Your task to perform on an android device: Search for Mexican restaurants on Maps Image 0: 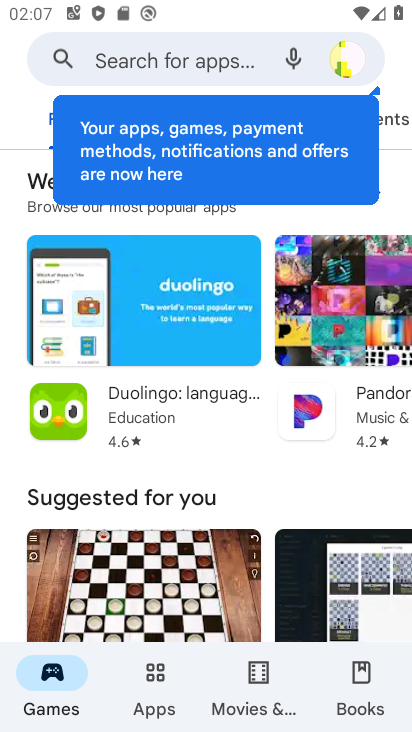
Step 0: press home button
Your task to perform on an android device: Search for Mexican restaurants on Maps Image 1: 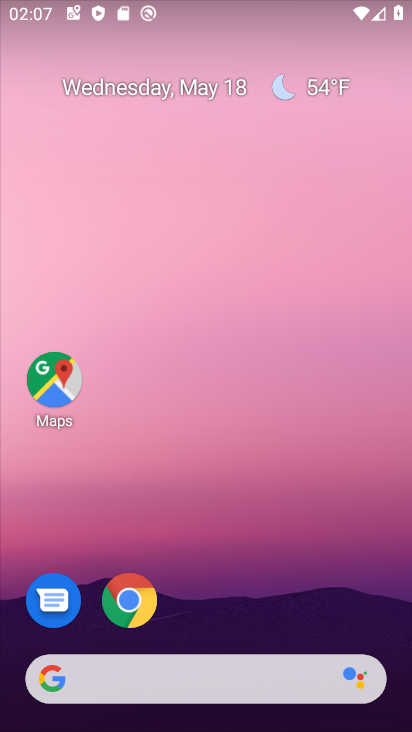
Step 1: drag from (199, 657) to (182, 268)
Your task to perform on an android device: Search for Mexican restaurants on Maps Image 2: 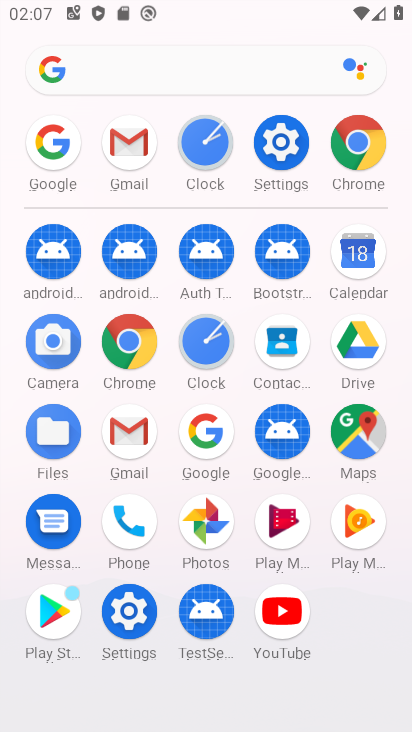
Step 2: click (48, 612)
Your task to perform on an android device: Search for Mexican restaurants on Maps Image 3: 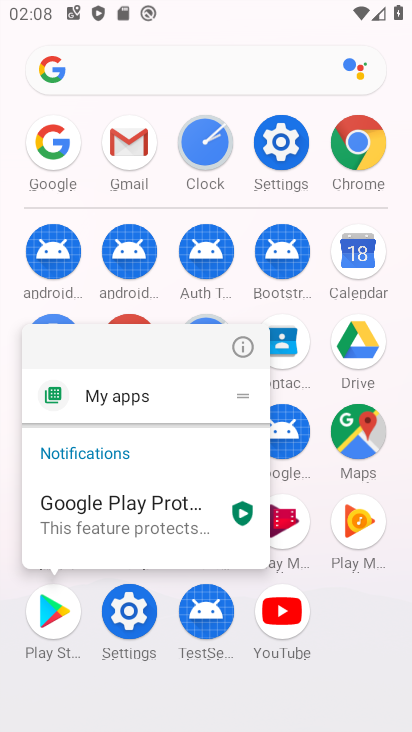
Step 3: click (325, 448)
Your task to perform on an android device: Search for Mexican restaurants on Maps Image 4: 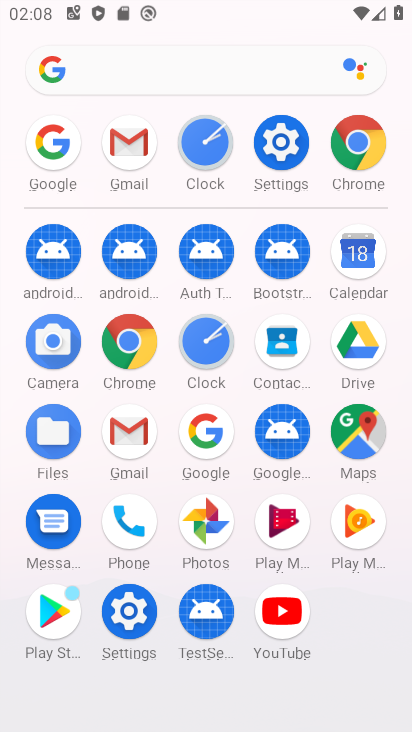
Step 4: click (349, 700)
Your task to perform on an android device: Search for Mexican restaurants on Maps Image 5: 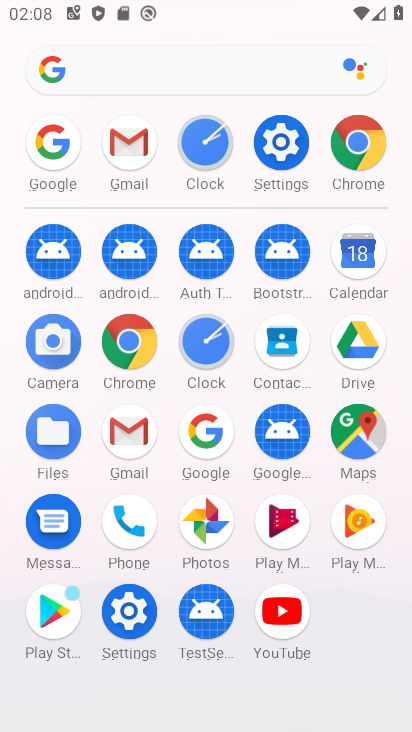
Step 5: click (345, 439)
Your task to perform on an android device: Search for Mexican restaurants on Maps Image 6: 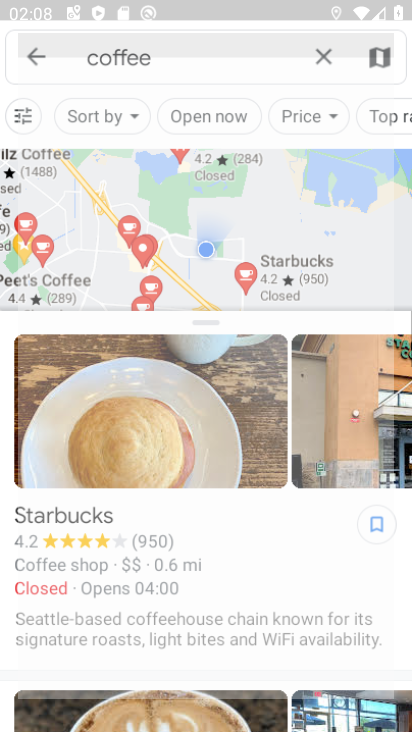
Step 6: click (327, 58)
Your task to perform on an android device: Search for Mexican restaurants on Maps Image 7: 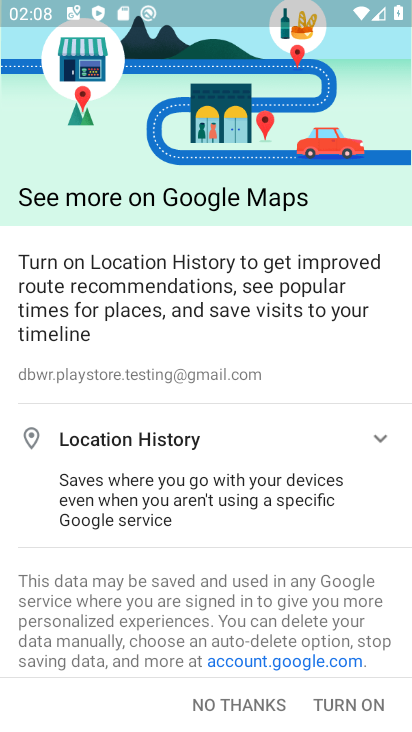
Step 7: click (372, 713)
Your task to perform on an android device: Search for Mexican restaurants on Maps Image 8: 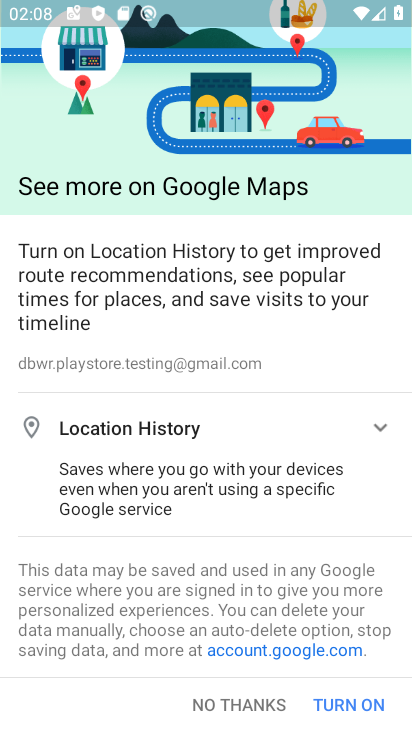
Step 8: click (369, 704)
Your task to perform on an android device: Search for Mexican restaurants on Maps Image 9: 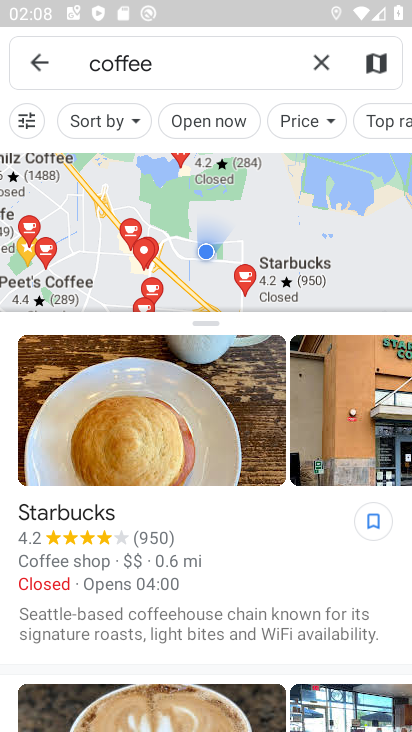
Step 9: click (314, 59)
Your task to perform on an android device: Search for Mexican restaurants on Maps Image 10: 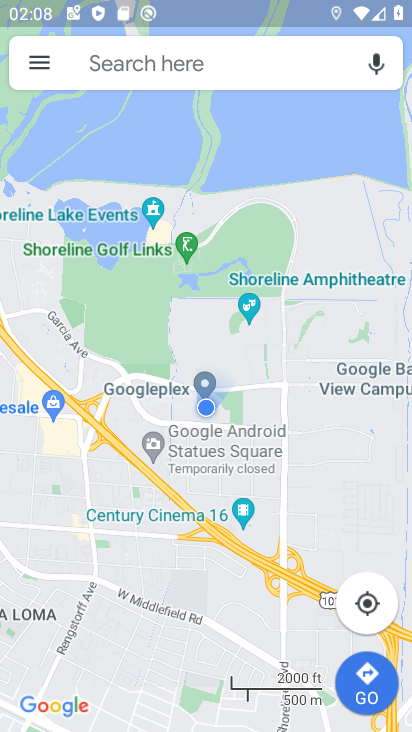
Step 10: click (189, 75)
Your task to perform on an android device: Search for Mexican restaurants on Maps Image 11: 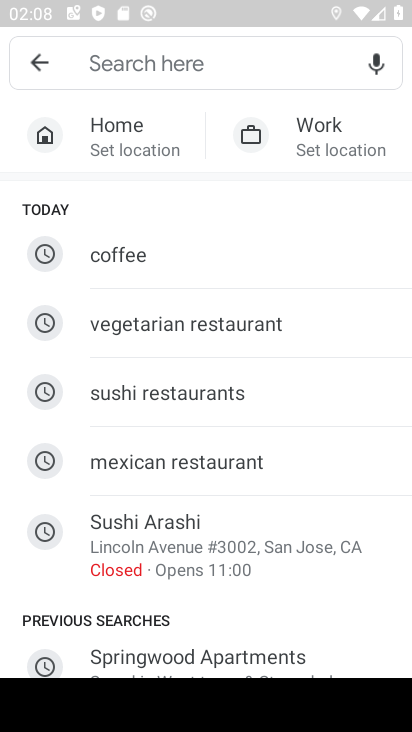
Step 11: click (150, 467)
Your task to perform on an android device: Search for Mexican restaurants on Maps Image 12: 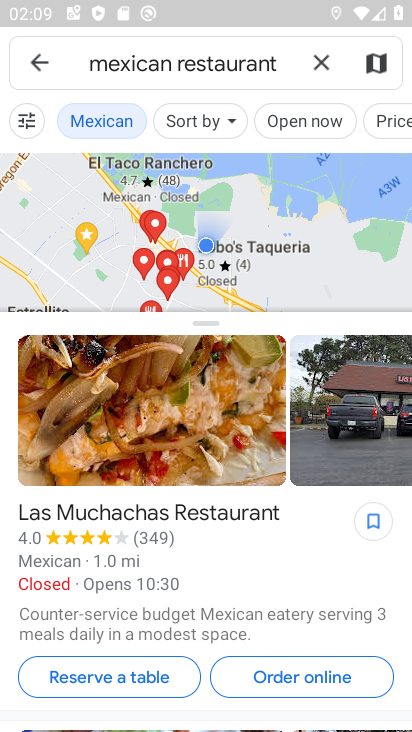
Step 12: task complete